Your task to perform on an android device: empty trash in the gmail app Image 0: 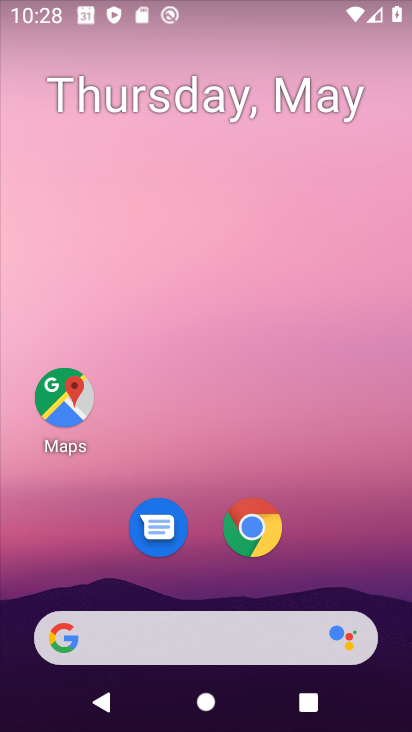
Step 0: drag from (227, 728) to (229, 87)
Your task to perform on an android device: empty trash in the gmail app Image 1: 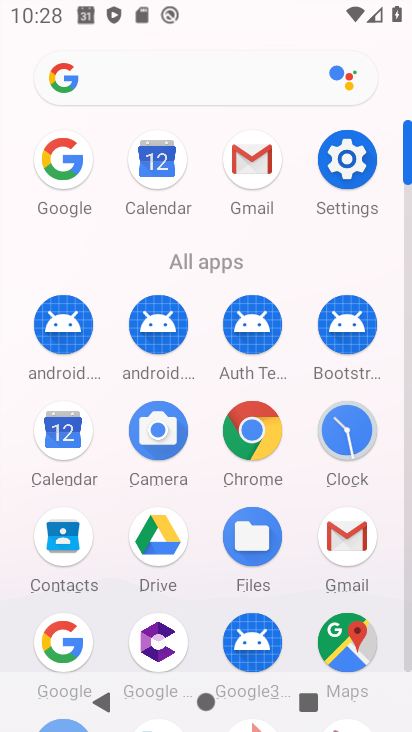
Step 1: click (344, 532)
Your task to perform on an android device: empty trash in the gmail app Image 2: 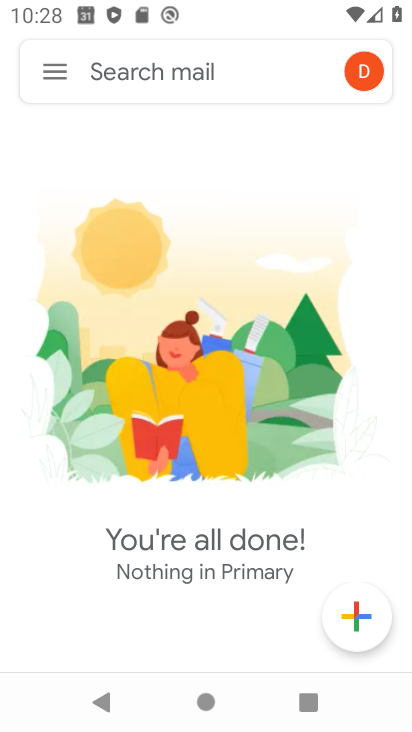
Step 2: click (56, 64)
Your task to perform on an android device: empty trash in the gmail app Image 3: 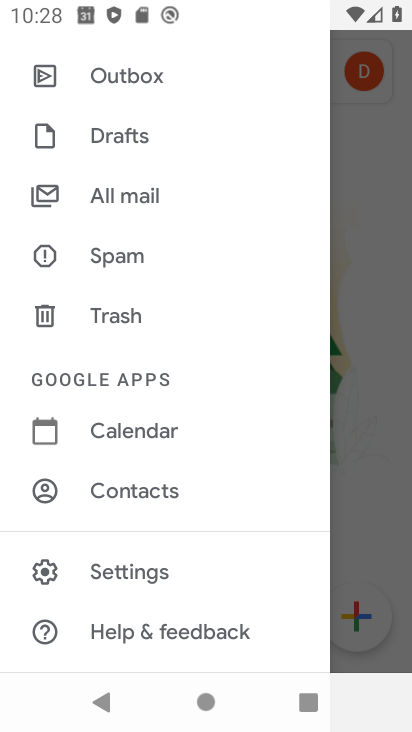
Step 3: click (121, 312)
Your task to perform on an android device: empty trash in the gmail app Image 4: 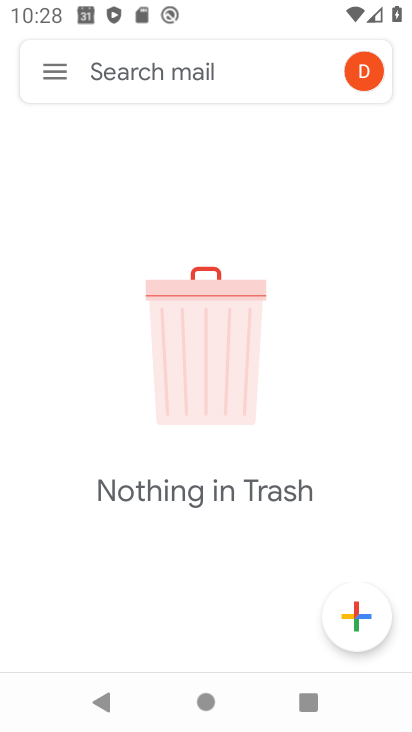
Step 4: task complete